Your task to perform on an android device: Go to display settings Image 0: 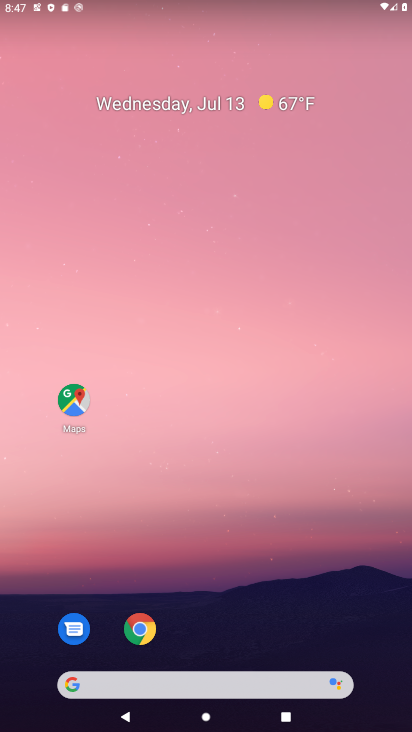
Step 0: drag from (208, 651) to (137, 19)
Your task to perform on an android device: Go to display settings Image 1: 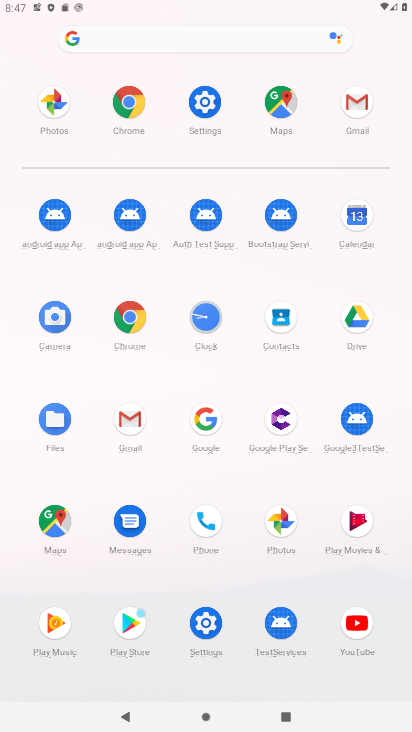
Step 1: click (209, 632)
Your task to perform on an android device: Go to display settings Image 2: 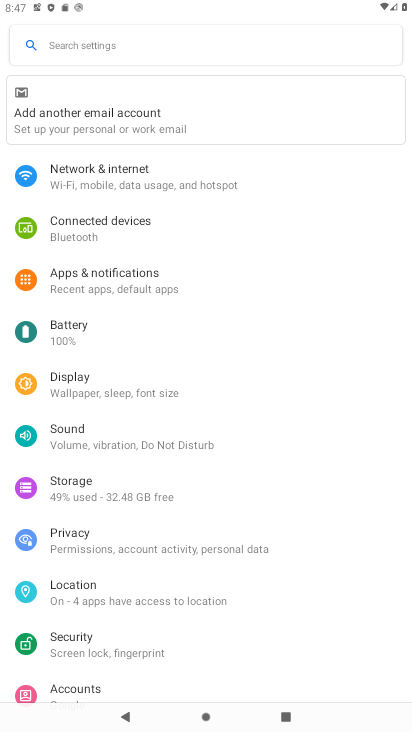
Step 2: click (121, 392)
Your task to perform on an android device: Go to display settings Image 3: 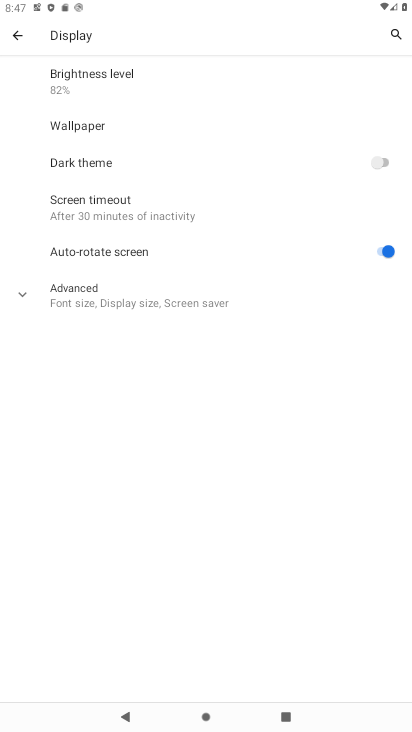
Step 3: task complete